Your task to perform on an android device: turn notification dots off Image 0: 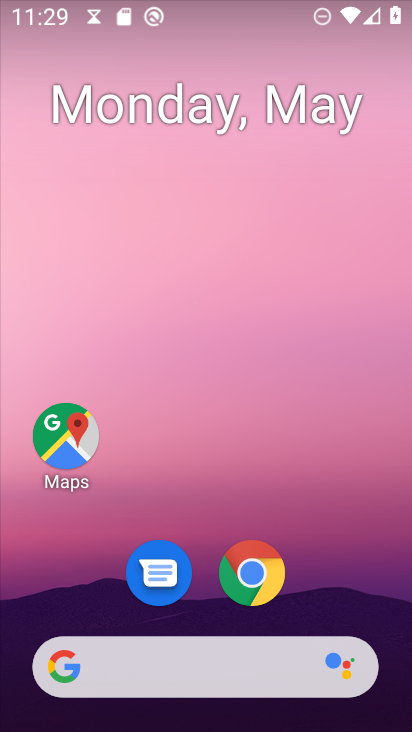
Step 0: drag from (333, 571) to (223, 63)
Your task to perform on an android device: turn notification dots off Image 1: 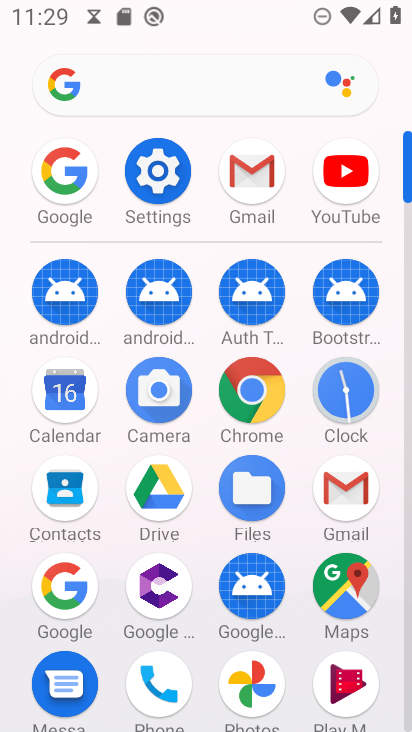
Step 1: click (161, 175)
Your task to perform on an android device: turn notification dots off Image 2: 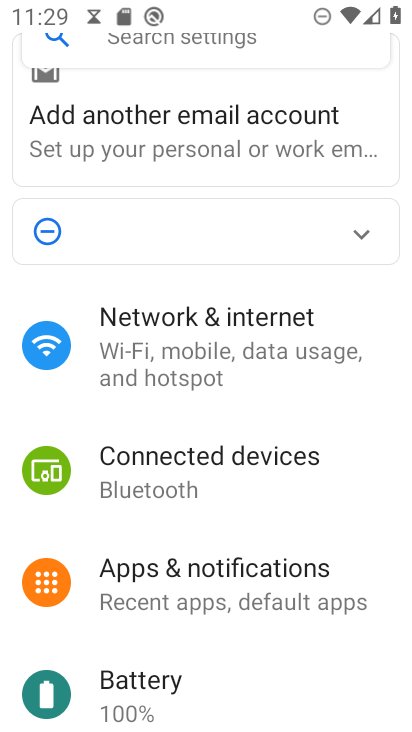
Step 2: drag from (233, 512) to (268, 219)
Your task to perform on an android device: turn notification dots off Image 3: 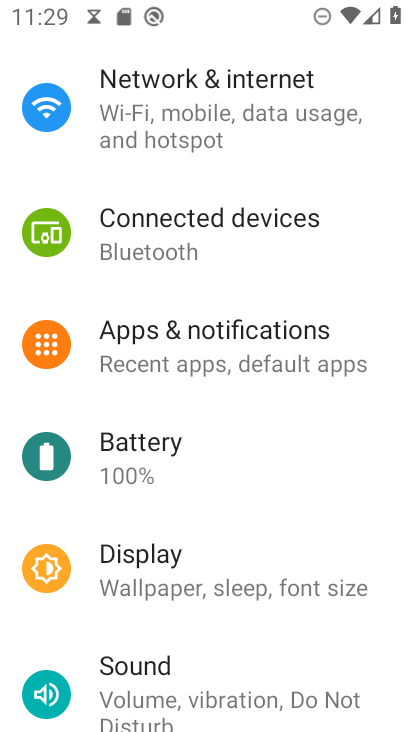
Step 3: click (223, 364)
Your task to perform on an android device: turn notification dots off Image 4: 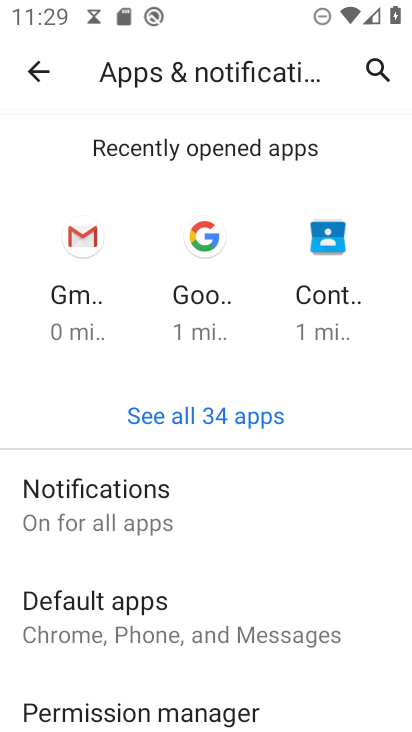
Step 4: click (243, 510)
Your task to perform on an android device: turn notification dots off Image 5: 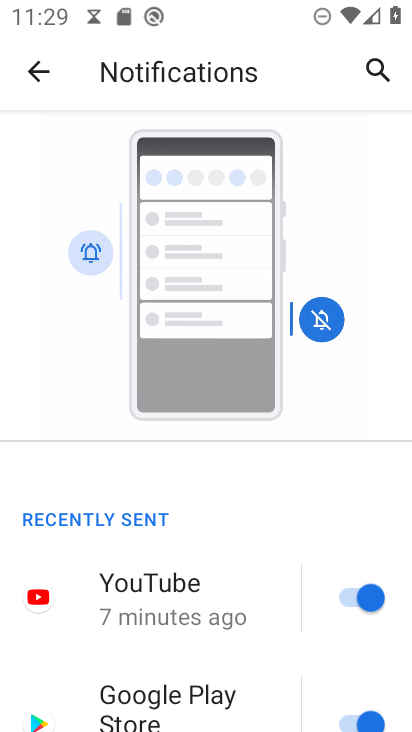
Step 5: drag from (293, 582) to (261, 256)
Your task to perform on an android device: turn notification dots off Image 6: 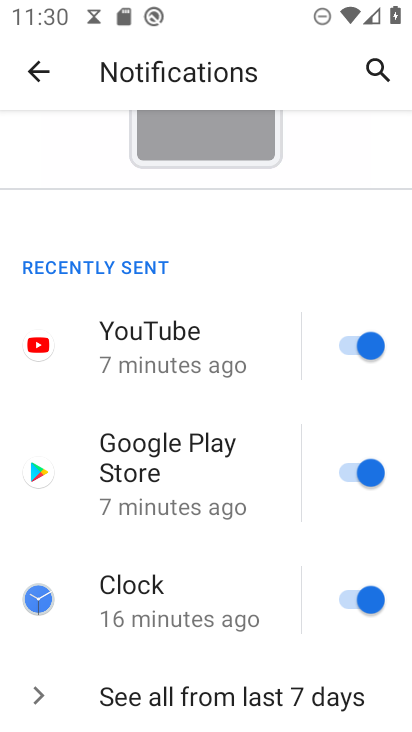
Step 6: click (361, 344)
Your task to perform on an android device: turn notification dots off Image 7: 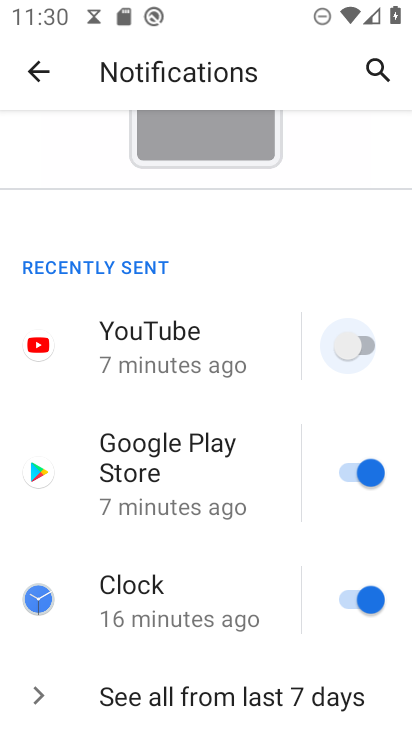
Step 7: click (355, 464)
Your task to perform on an android device: turn notification dots off Image 8: 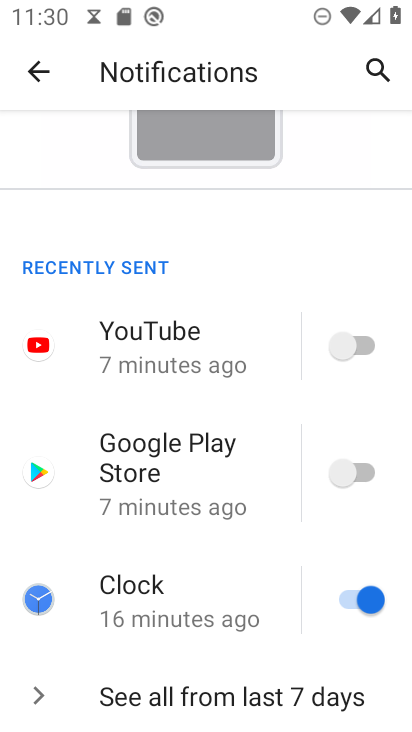
Step 8: click (357, 603)
Your task to perform on an android device: turn notification dots off Image 9: 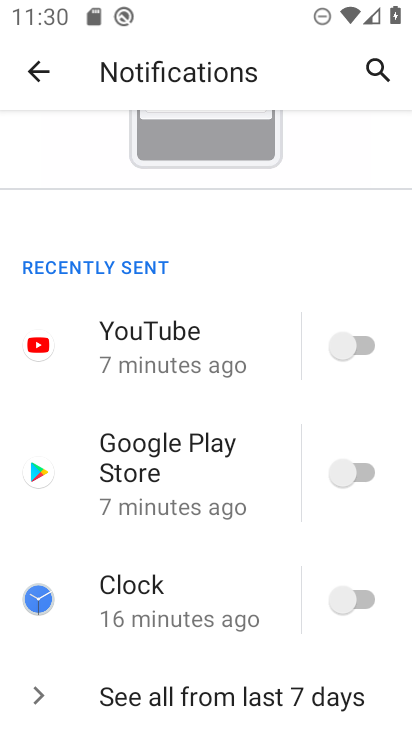
Step 9: task complete